Your task to perform on an android device: Open the Play Movies app and select the watchlist tab. Image 0: 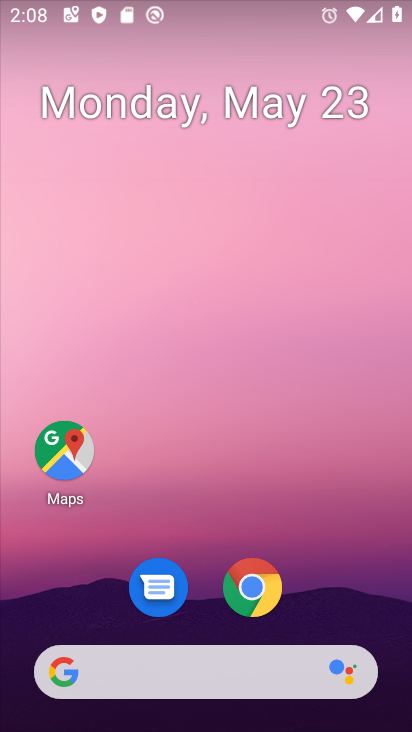
Step 0: drag from (361, 592) to (225, 79)
Your task to perform on an android device: Open the Play Movies app and select the watchlist tab. Image 1: 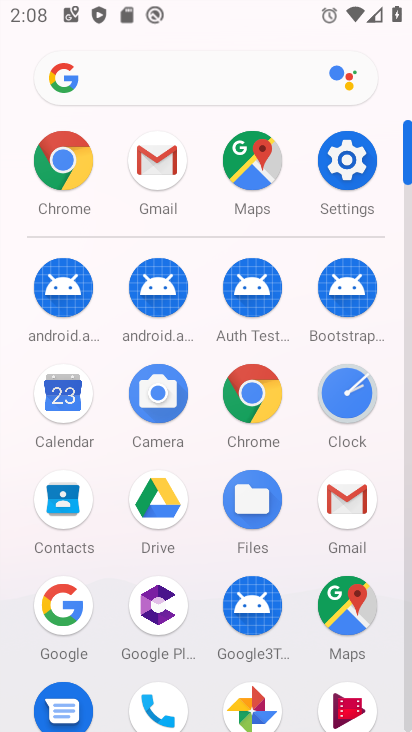
Step 1: click (338, 700)
Your task to perform on an android device: Open the Play Movies app and select the watchlist tab. Image 2: 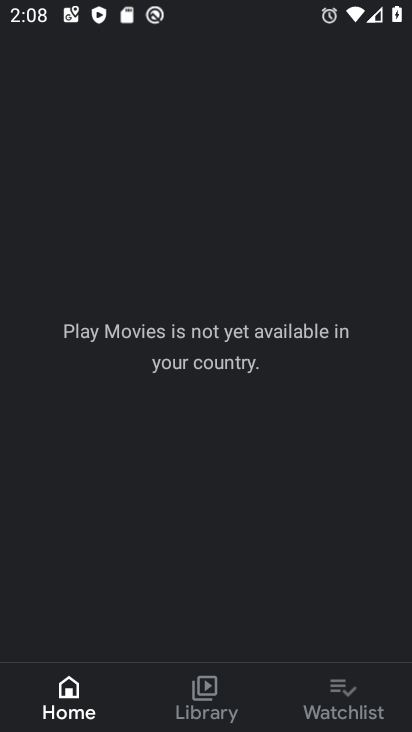
Step 2: click (376, 707)
Your task to perform on an android device: Open the Play Movies app and select the watchlist tab. Image 3: 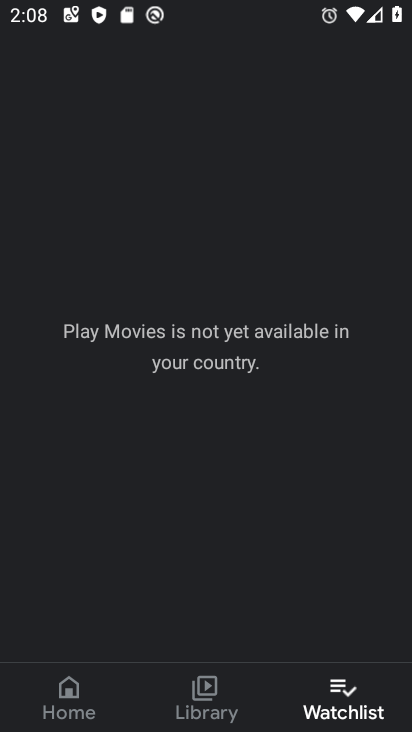
Step 3: task complete